Your task to perform on an android device: open chrome privacy settings Image 0: 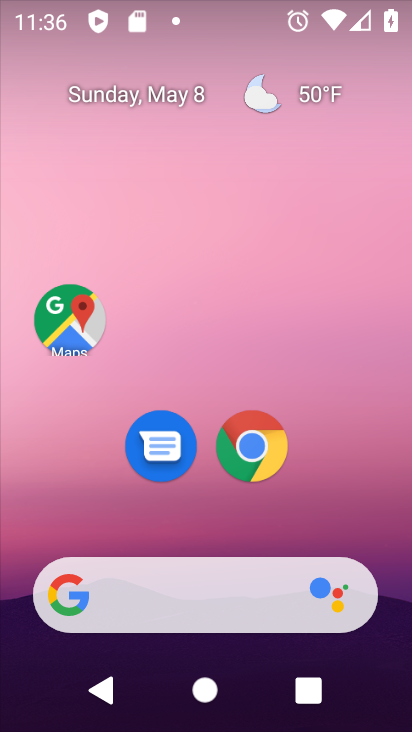
Step 0: click (246, 449)
Your task to perform on an android device: open chrome privacy settings Image 1: 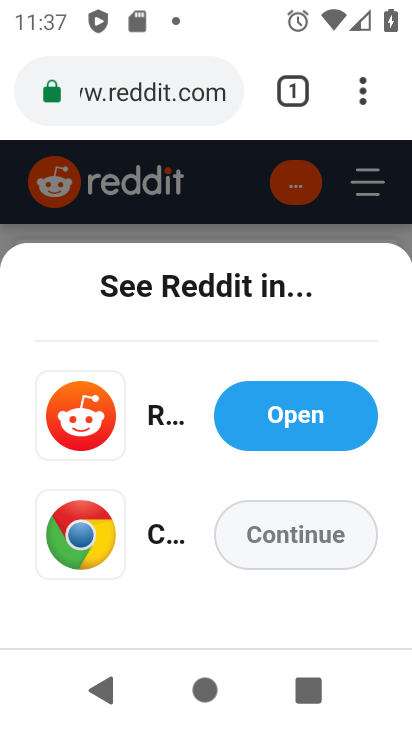
Step 1: click (358, 103)
Your task to perform on an android device: open chrome privacy settings Image 2: 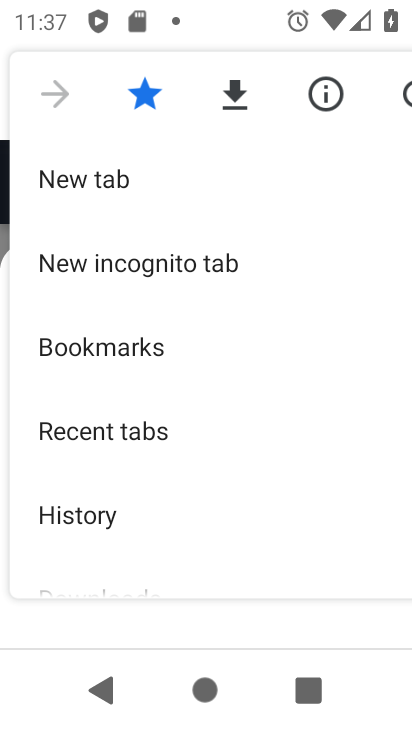
Step 2: drag from (108, 557) to (100, 379)
Your task to perform on an android device: open chrome privacy settings Image 3: 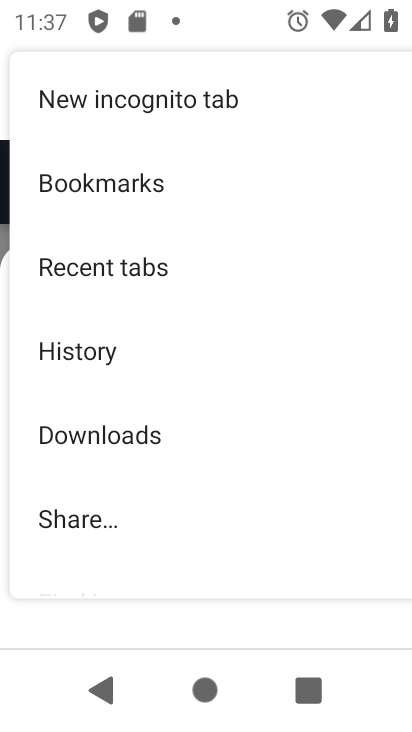
Step 3: drag from (166, 517) to (140, 308)
Your task to perform on an android device: open chrome privacy settings Image 4: 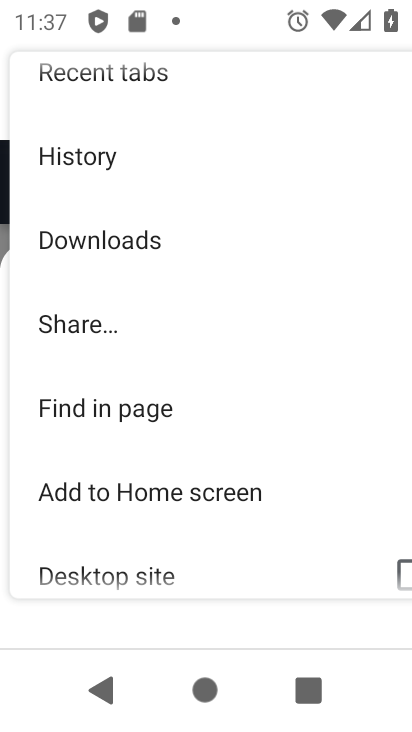
Step 4: drag from (151, 553) to (166, 310)
Your task to perform on an android device: open chrome privacy settings Image 5: 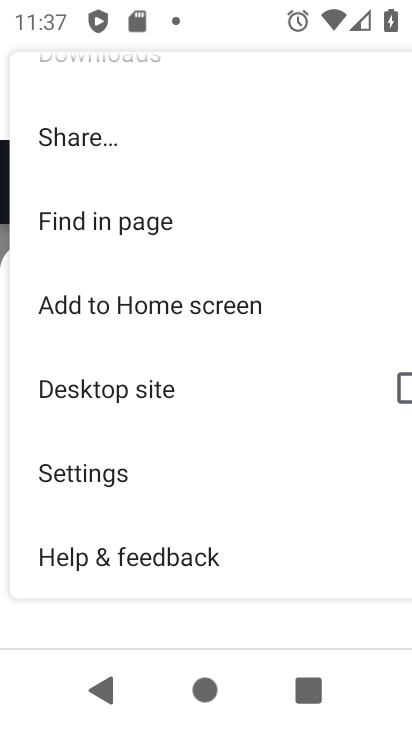
Step 5: click (152, 480)
Your task to perform on an android device: open chrome privacy settings Image 6: 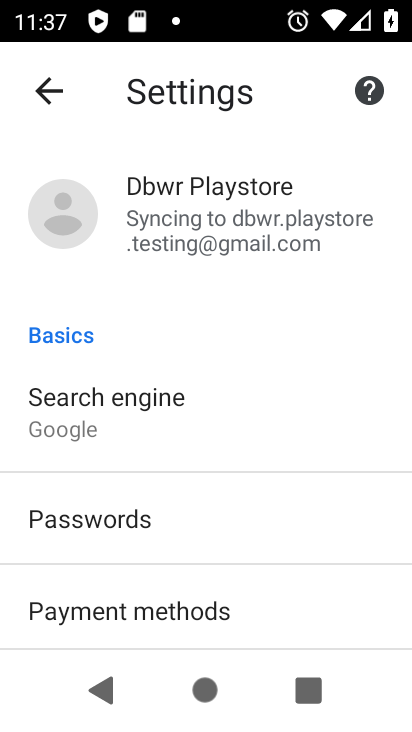
Step 6: drag from (164, 539) to (140, 383)
Your task to perform on an android device: open chrome privacy settings Image 7: 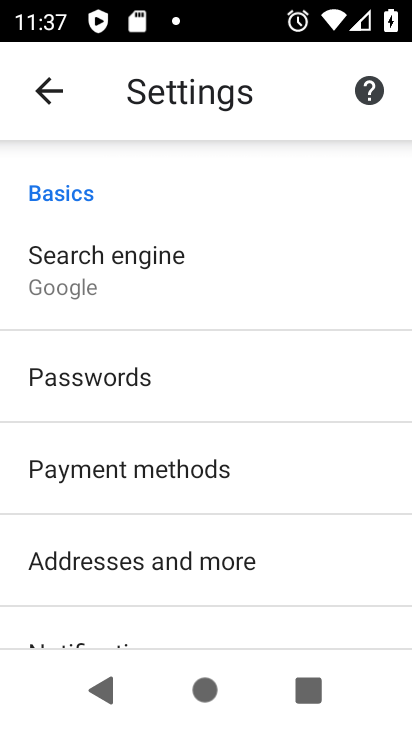
Step 7: drag from (191, 570) to (189, 399)
Your task to perform on an android device: open chrome privacy settings Image 8: 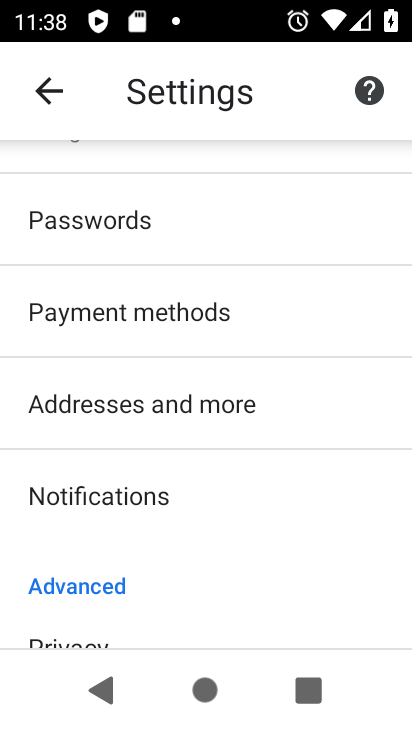
Step 8: drag from (229, 631) to (228, 431)
Your task to perform on an android device: open chrome privacy settings Image 9: 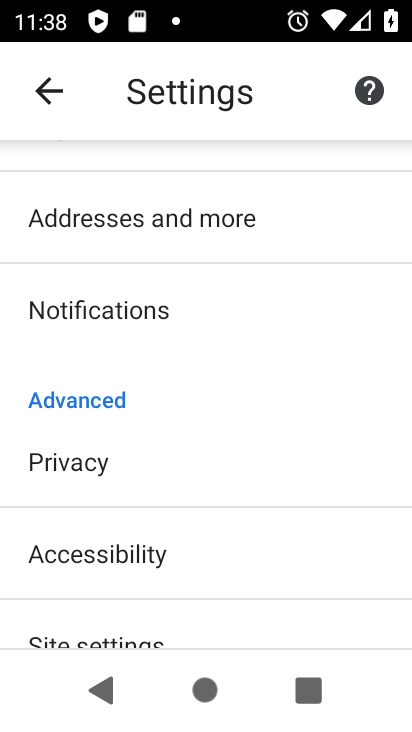
Step 9: click (156, 490)
Your task to perform on an android device: open chrome privacy settings Image 10: 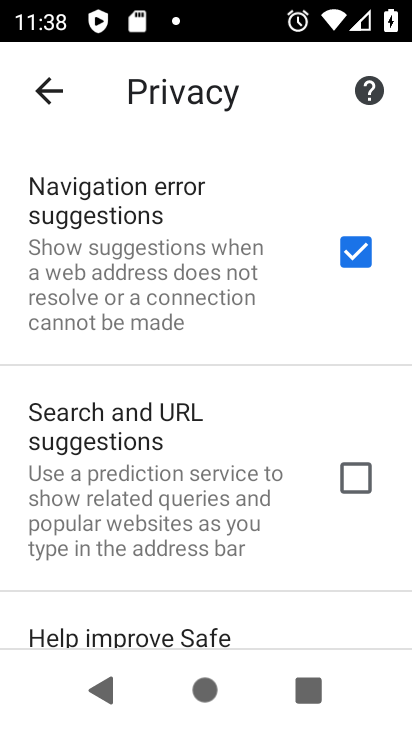
Step 10: task complete